Your task to perform on an android device: install app "Chime – Mobile Banking" Image 0: 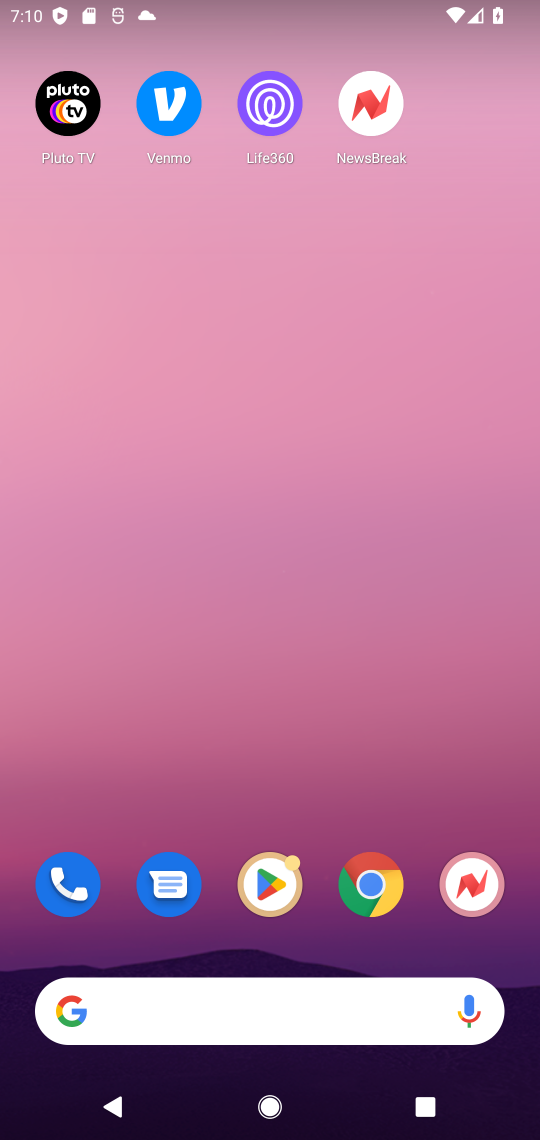
Step 0: click (251, 903)
Your task to perform on an android device: install app "Chime – Mobile Banking" Image 1: 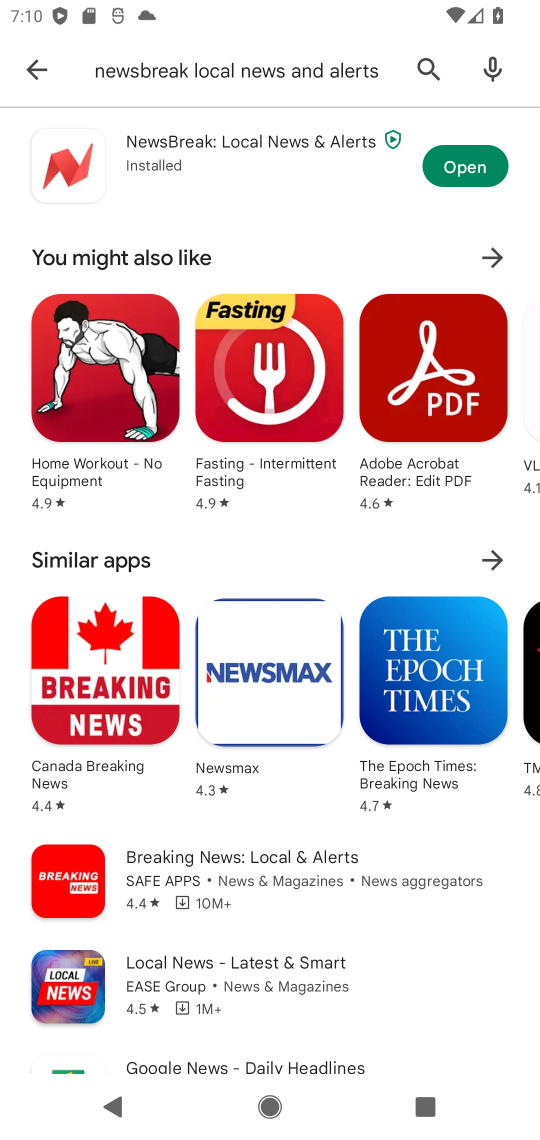
Step 1: click (434, 72)
Your task to perform on an android device: install app "Chime – Mobile Banking" Image 2: 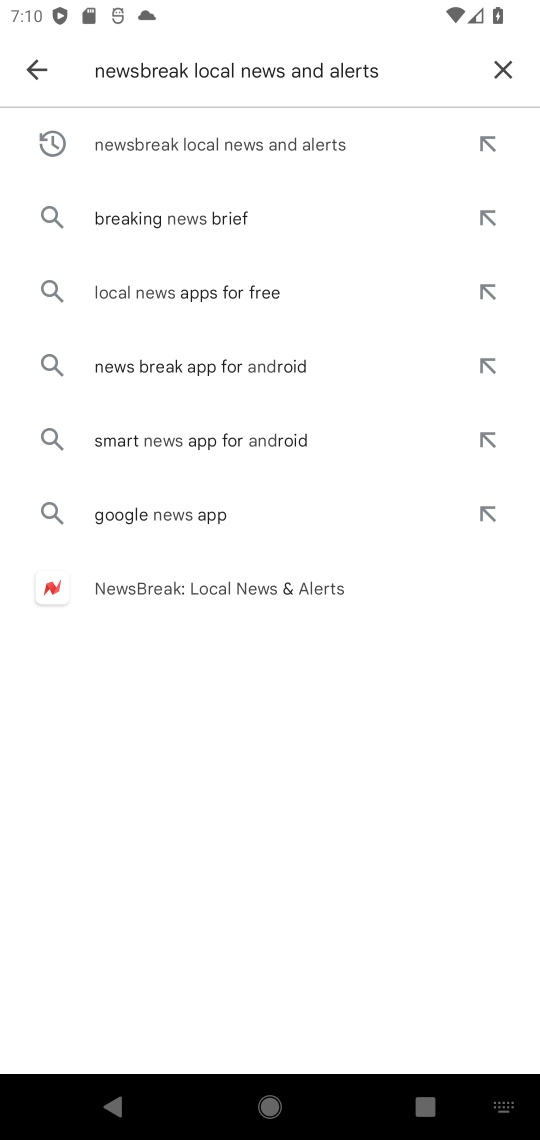
Step 2: click (503, 61)
Your task to perform on an android device: install app "Chime – Mobile Banking" Image 3: 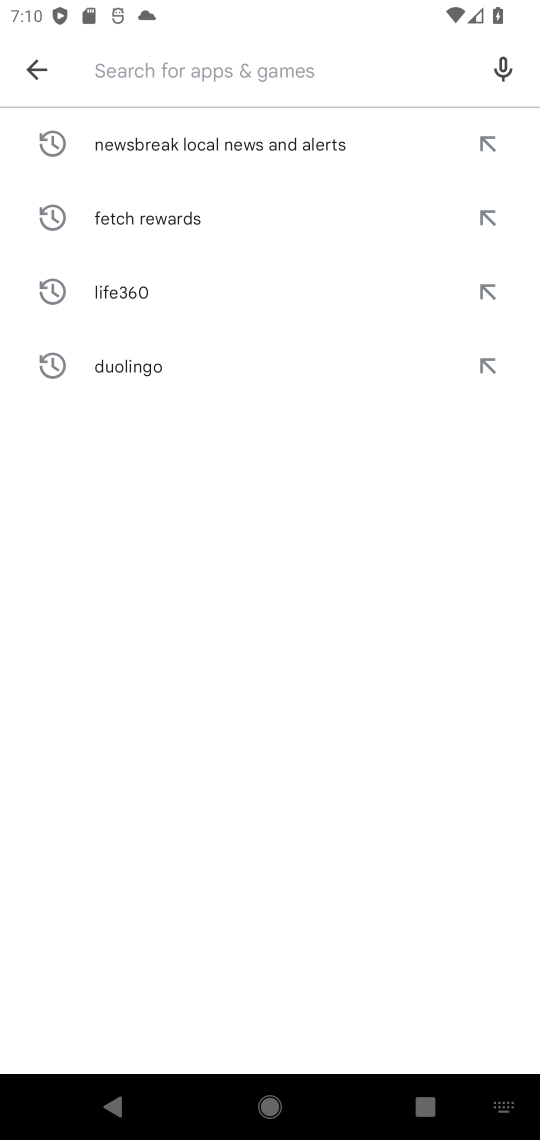
Step 3: type "chime"
Your task to perform on an android device: install app "Chime – Mobile Banking" Image 4: 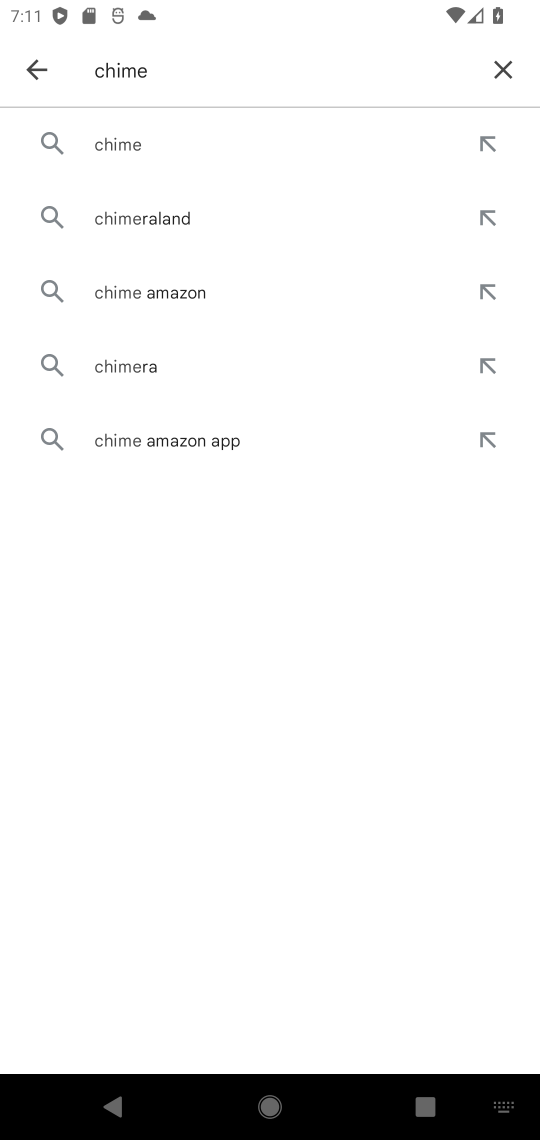
Step 4: click (122, 151)
Your task to perform on an android device: install app "Chime – Mobile Banking" Image 5: 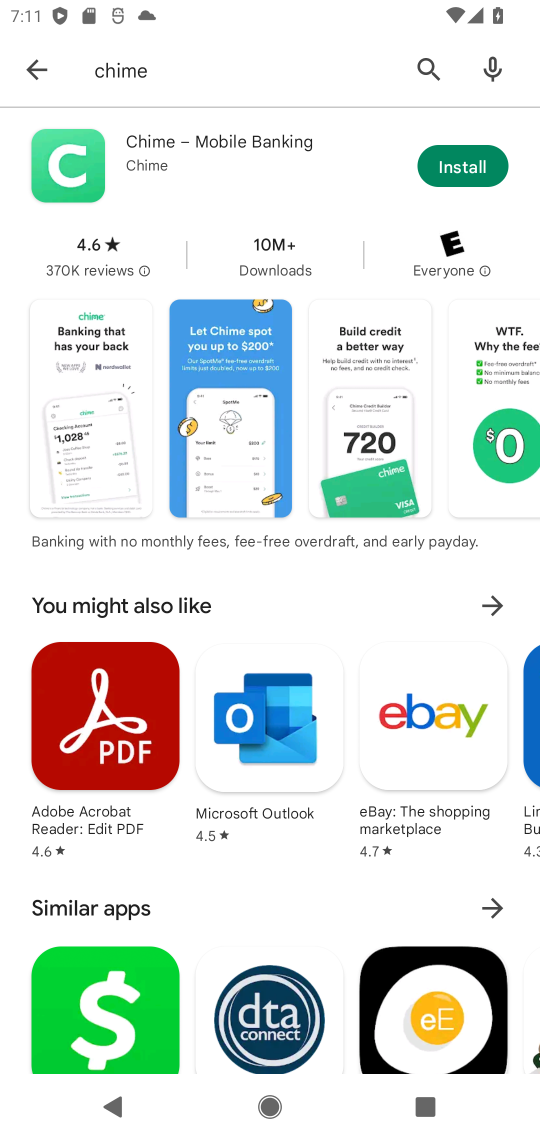
Step 5: click (475, 173)
Your task to perform on an android device: install app "Chime – Mobile Banking" Image 6: 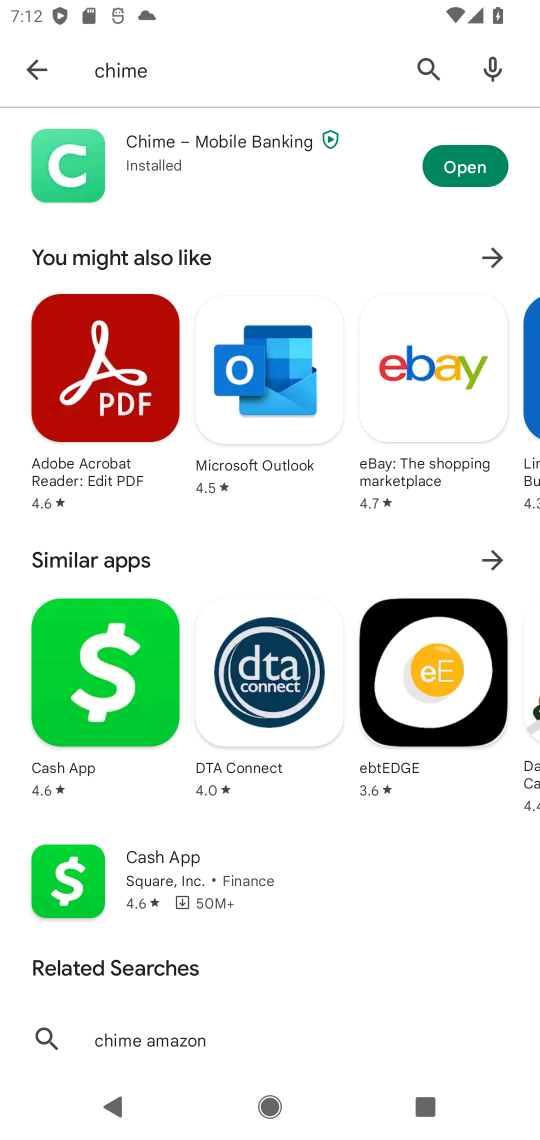
Step 6: task complete